Your task to perform on an android device: Open notification settings Image 0: 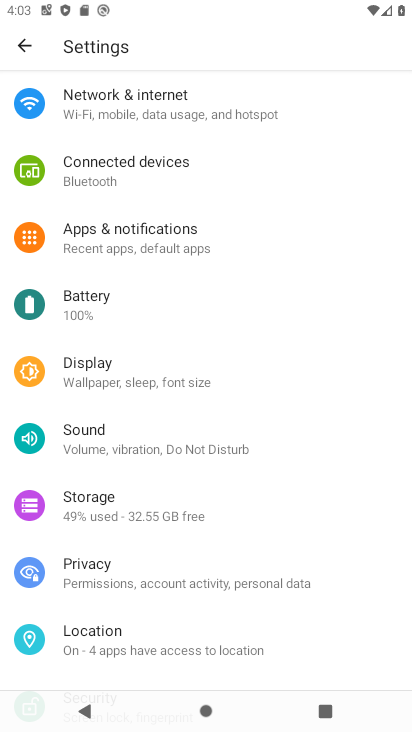
Step 0: click (138, 226)
Your task to perform on an android device: Open notification settings Image 1: 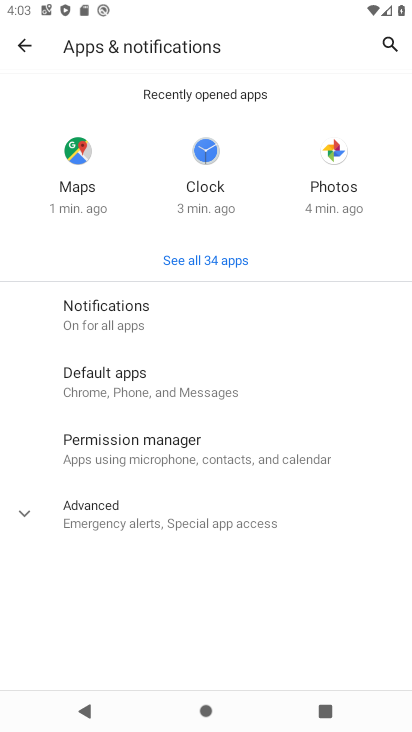
Step 1: click (134, 308)
Your task to perform on an android device: Open notification settings Image 2: 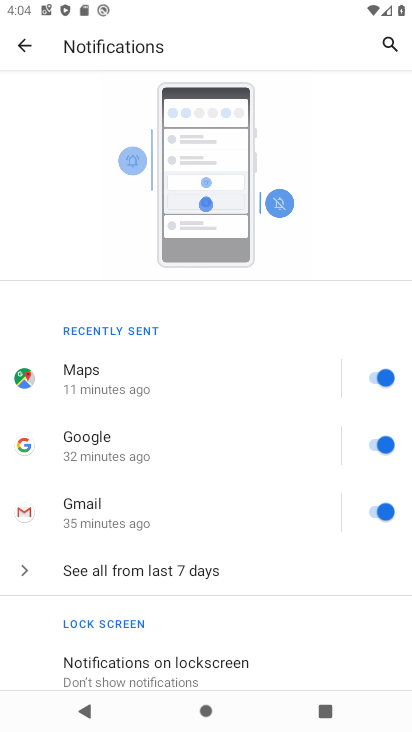
Step 2: task complete